Your task to perform on an android device: Is it going to rain this weekend? Image 0: 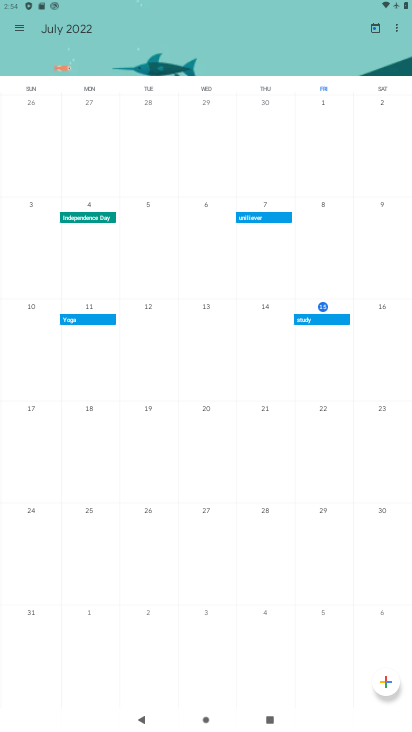
Step 0: press back button
Your task to perform on an android device: Is it going to rain this weekend? Image 1: 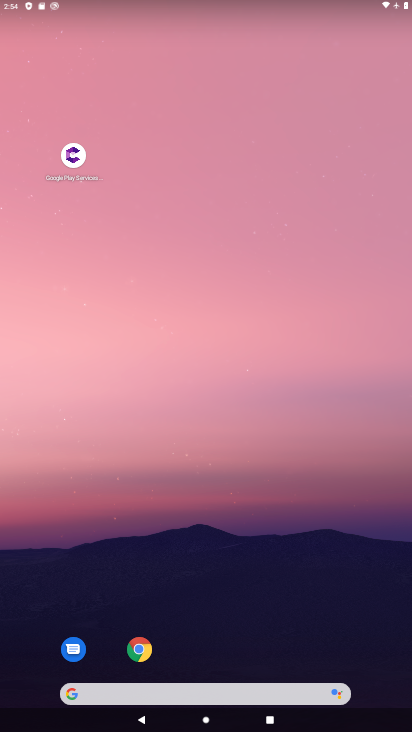
Step 1: drag from (215, 684) to (131, 79)
Your task to perform on an android device: Is it going to rain this weekend? Image 2: 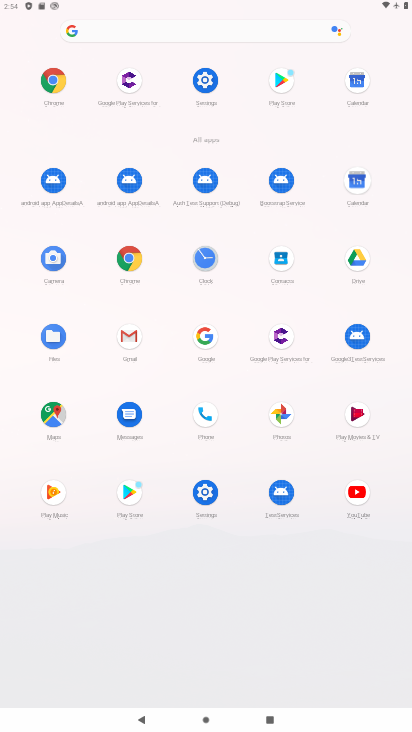
Step 2: click (55, 79)
Your task to perform on an android device: Is it going to rain this weekend? Image 3: 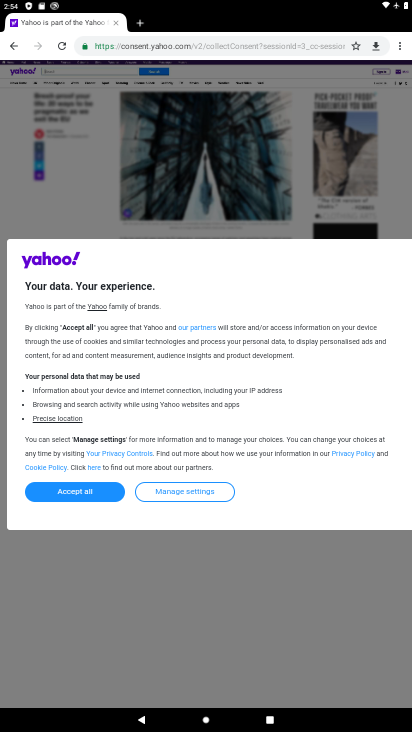
Step 3: drag from (410, 43) to (302, 47)
Your task to perform on an android device: Is it going to rain this weekend? Image 4: 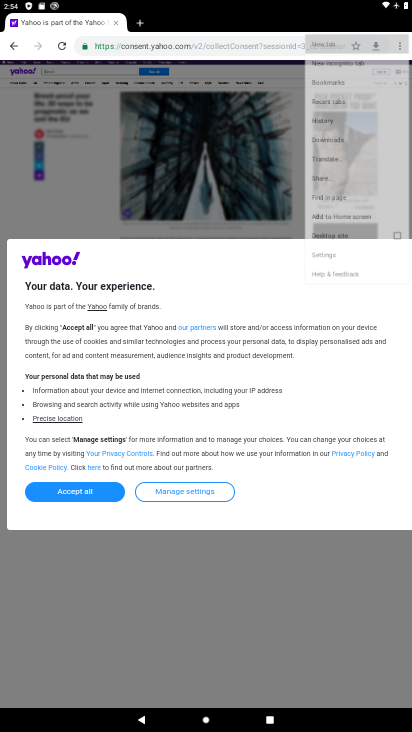
Step 4: click (302, 47)
Your task to perform on an android device: Is it going to rain this weekend? Image 5: 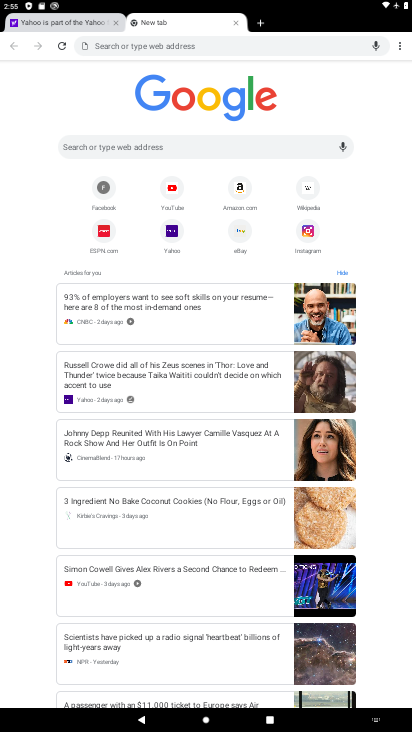
Step 5: type "is it going to rain this weekend?"
Your task to perform on an android device: Is it going to rain this weekend? Image 6: 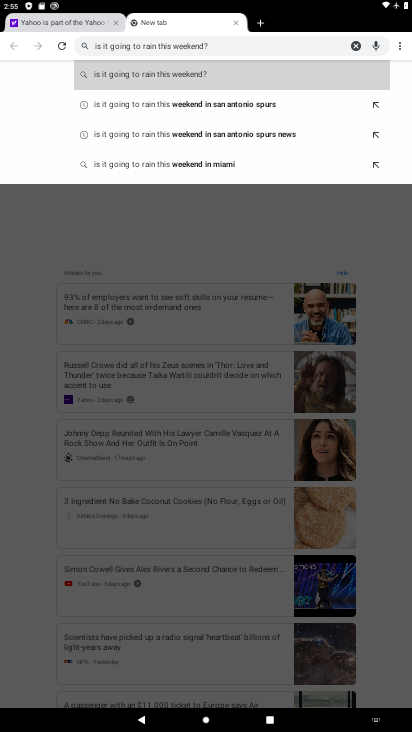
Step 6: click (176, 70)
Your task to perform on an android device: Is it going to rain this weekend? Image 7: 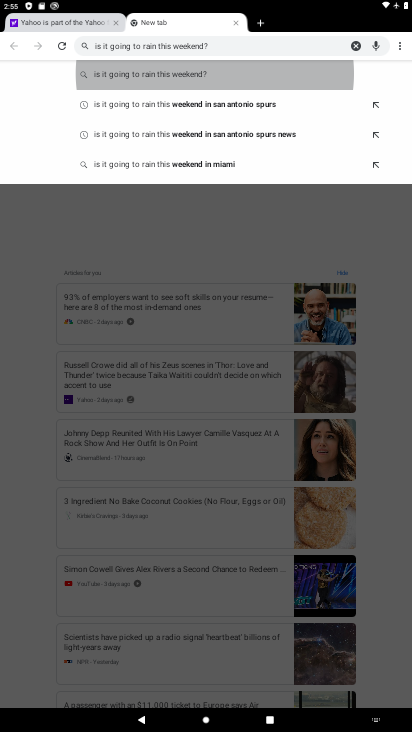
Step 7: click (176, 70)
Your task to perform on an android device: Is it going to rain this weekend? Image 8: 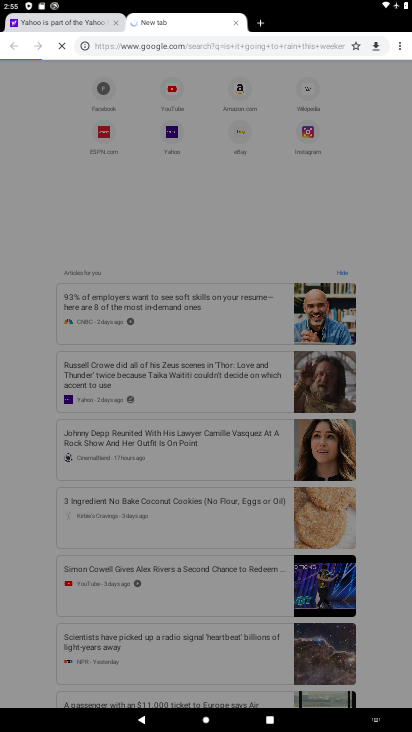
Step 8: click (176, 70)
Your task to perform on an android device: Is it going to rain this weekend? Image 9: 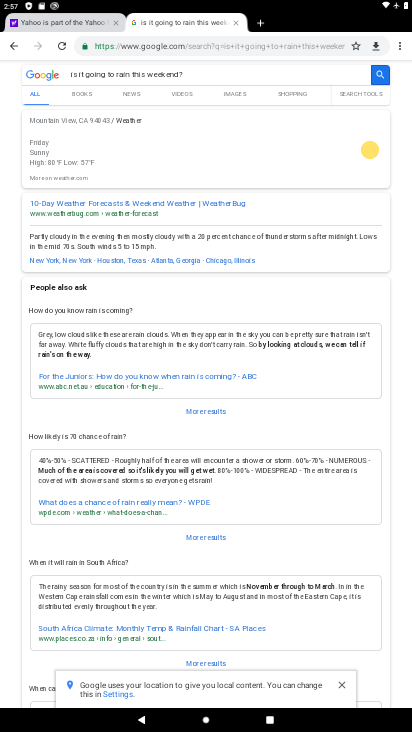
Step 9: task complete